Your task to perform on an android device: change text size in settings app Image 0: 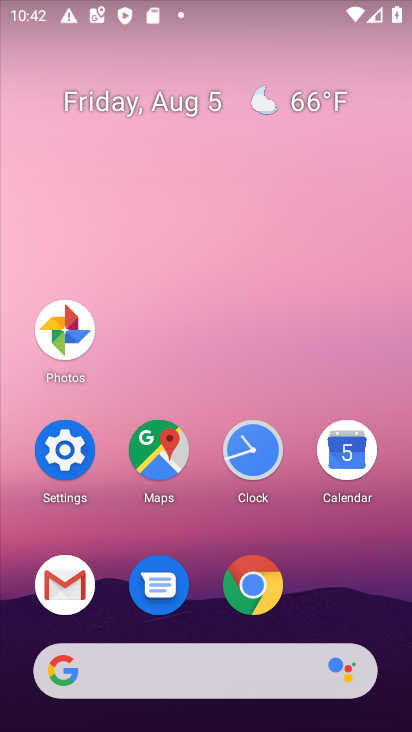
Step 0: click (61, 440)
Your task to perform on an android device: change text size in settings app Image 1: 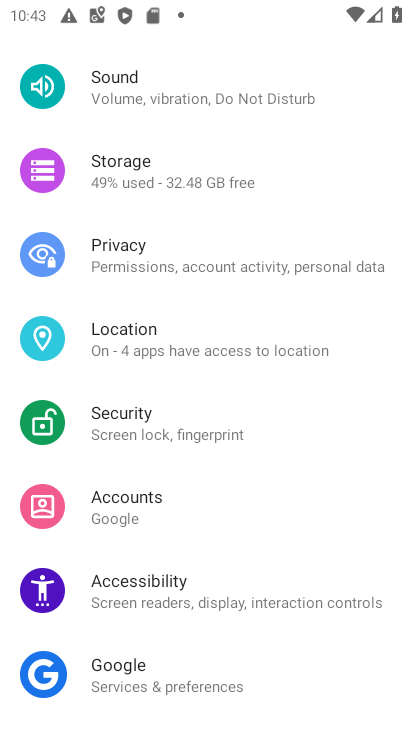
Step 1: drag from (282, 170) to (267, 396)
Your task to perform on an android device: change text size in settings app Image 2: 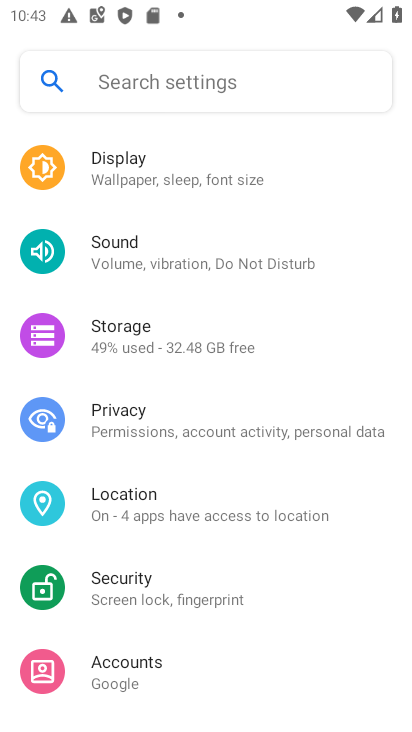
Step 2: click (103, 158)
Your task to perform on an android device: change text size in settings app Image 3: 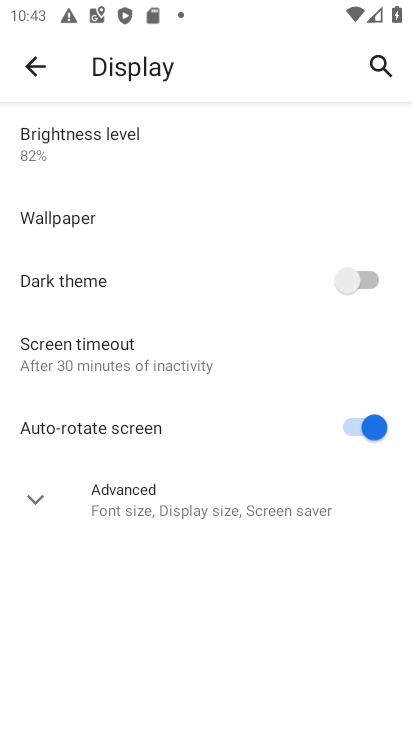
Step 3: click (36, 490)
Your task to perform on an android device: change text size in settings app Image 4: 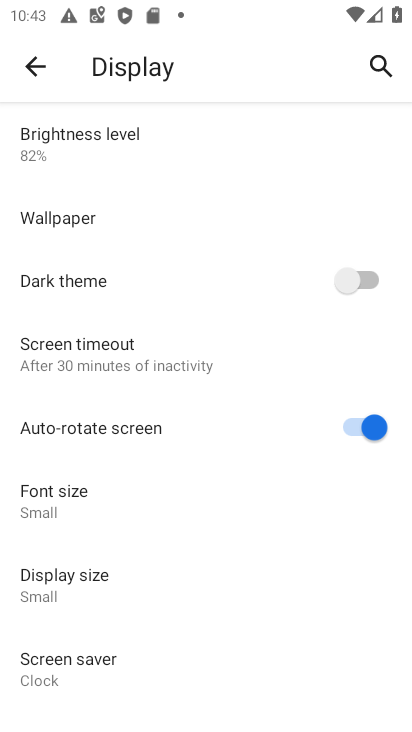
Step 4: click (46, 490)
Your task to perform on an android device: change text size in settings app Image 5: 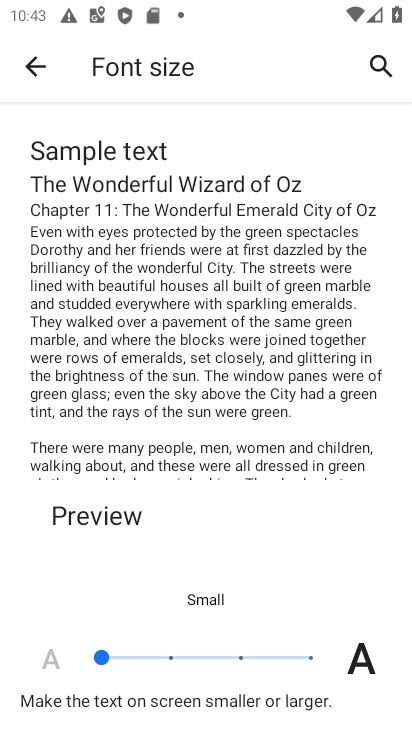
Step 5: click (161, 651)
Your task to perform on an android device: change text size in settings app Image 6: 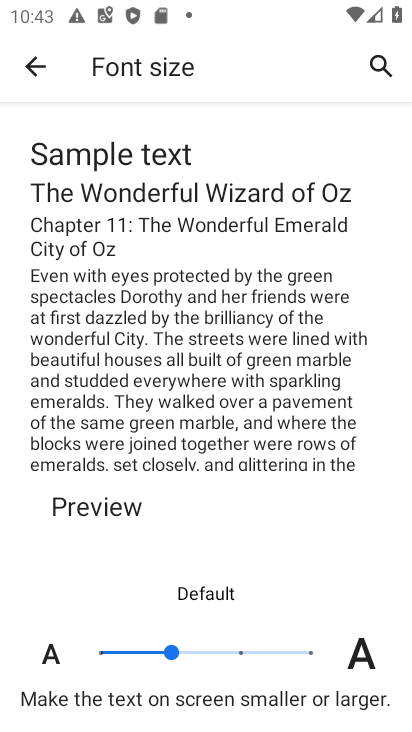
Step 6: task complete